Your task to perform on an android device: Go to settings Image 0: 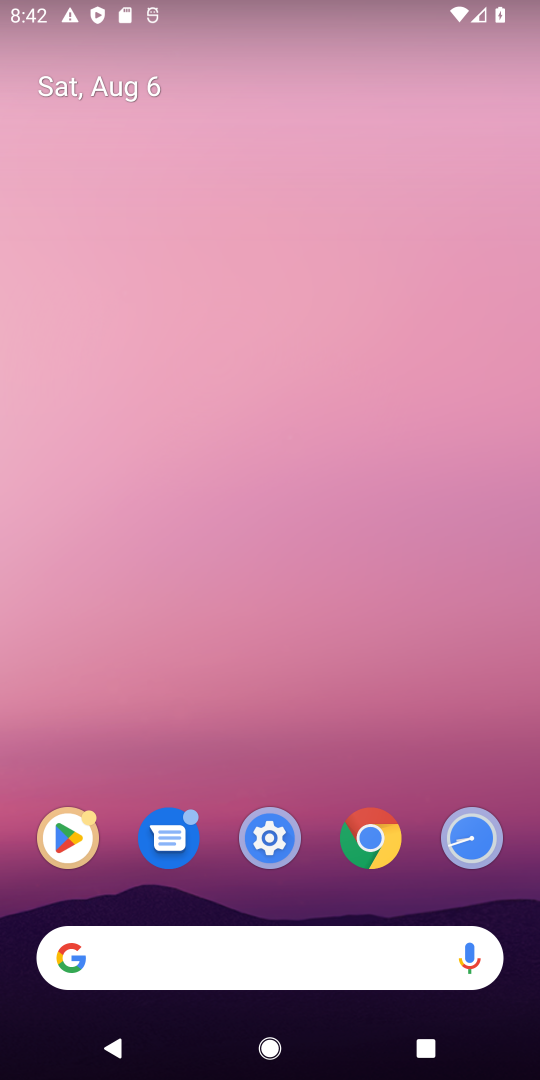
Step 0: click (276, 850)
Your task to perform on an android device: Go to settings Image 1: 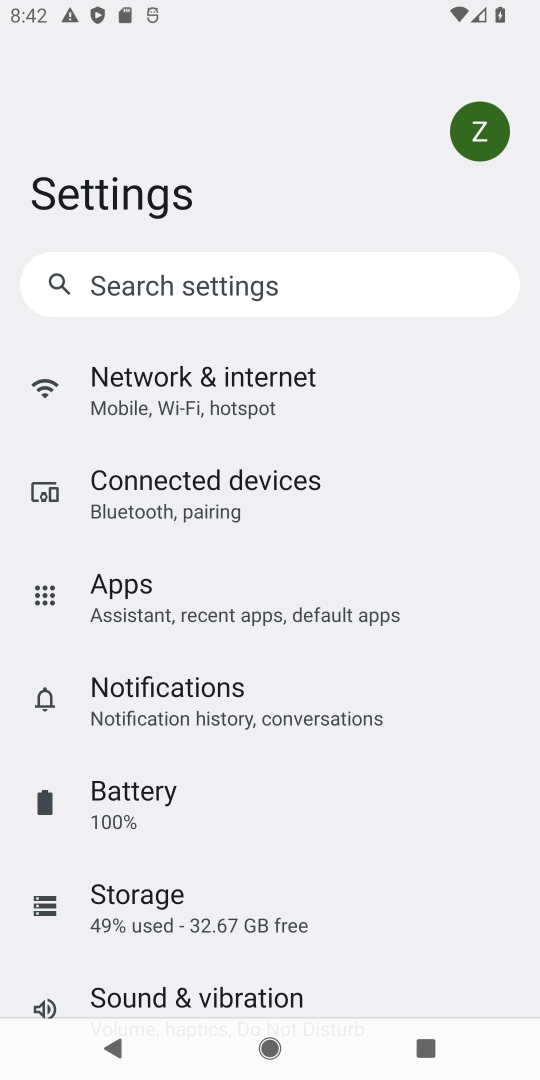
Step 1: task complete